Your task to perform on an android device: toggle translation in the chrome app Image 0: 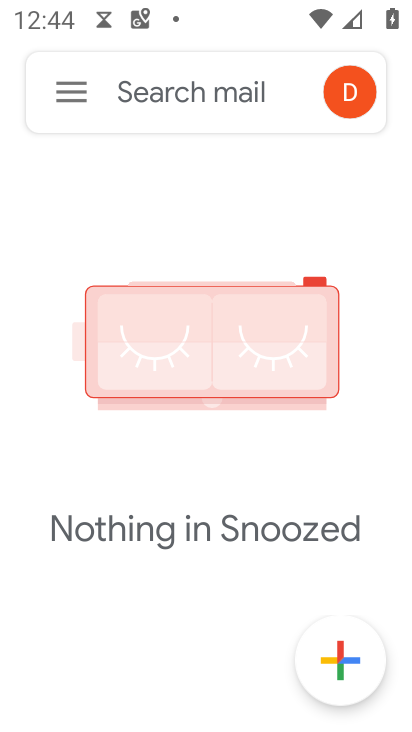
Step 0: press home button
Your task to perform on an android device: toggle translation in the chrome app Image 1: 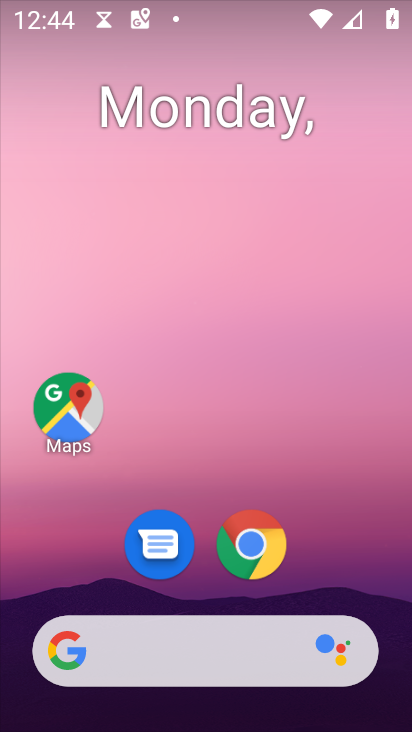
Step 1: click (241, 537)
Your task to perform on an android device: toggle translation in the chrome app Image 2: 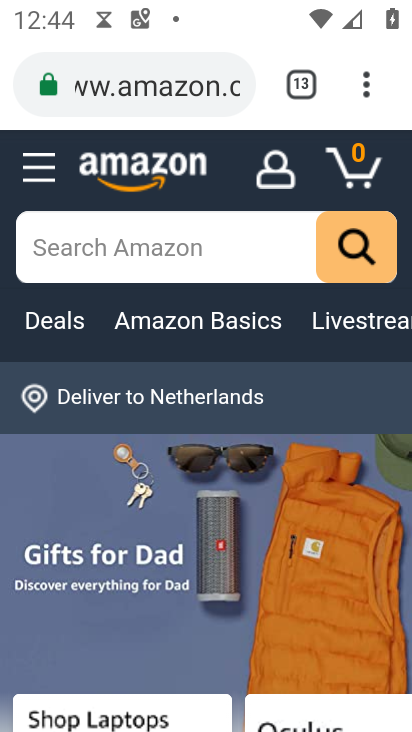
Step 2: click (367, 62)
Your task to perform on an android device: toggle translation in the chrome app Image 3: 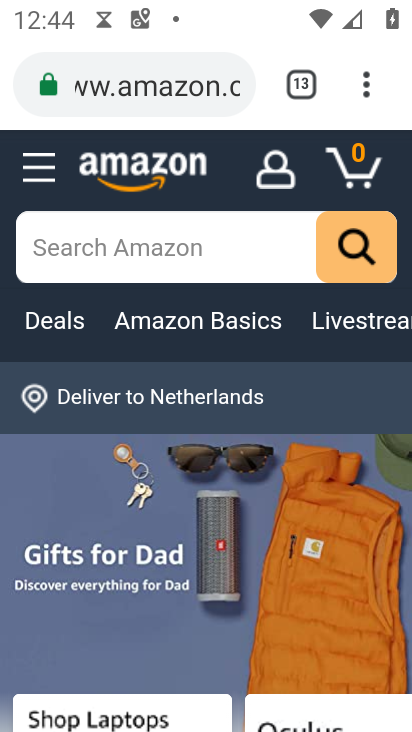
Step 3: click (367, 83)
Your task to perform on an android device: toggle translation in the chrome app Image 4: 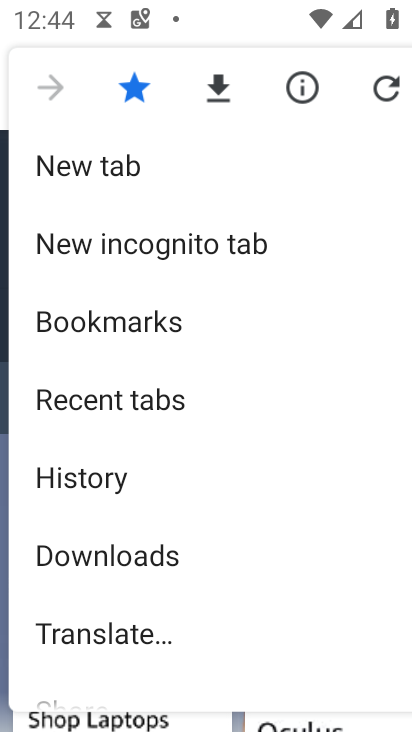
Step 4: drag from (183, 519) to (189, 402)
Your task to perform on an android device: toggle translation in the chrome app Image 5: 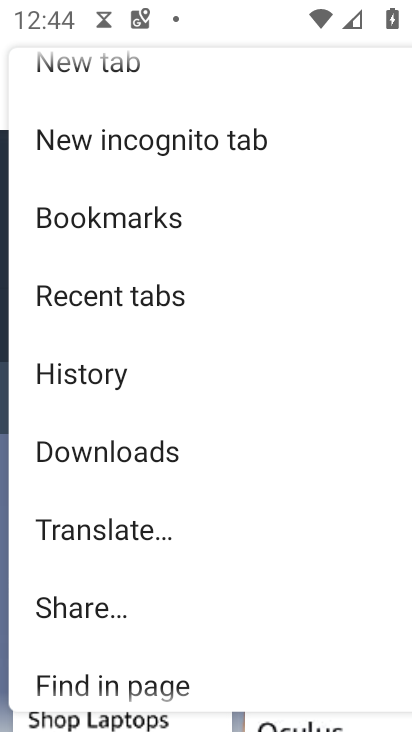
Step 5: drag from (140, 617) to (190, 331)
Your task to perform on an android device: toggle translation in the chrome app Image 6: 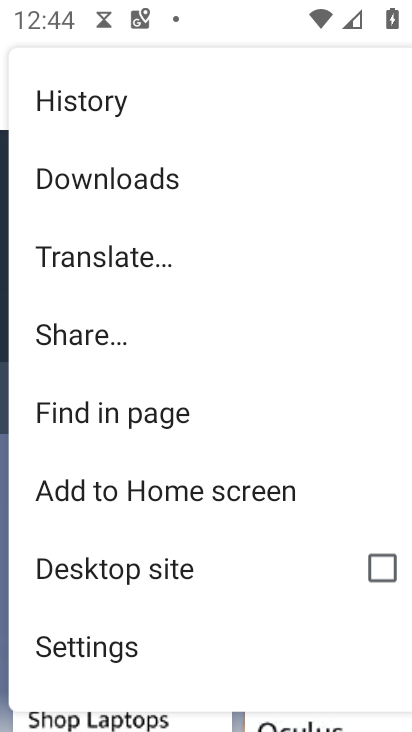
Step 6: click (121, 637)
Your task to perform on an android device: toggle translation in the chrome app Image 7: 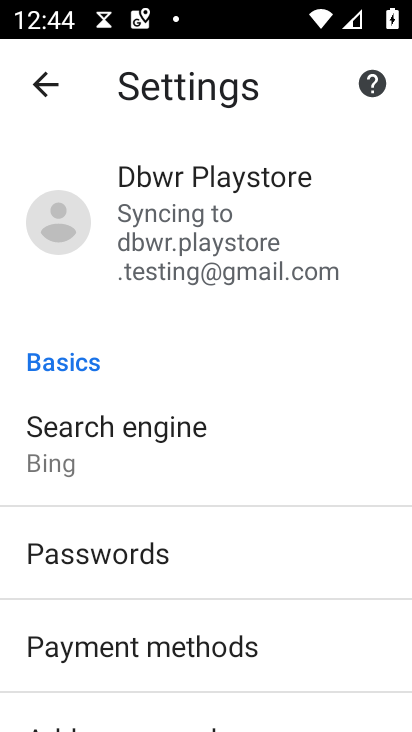
Step 7: drag from (228, 603) to (279, 255)
Your task to perform on an android device: toggle translation in the chrome app Image 8: 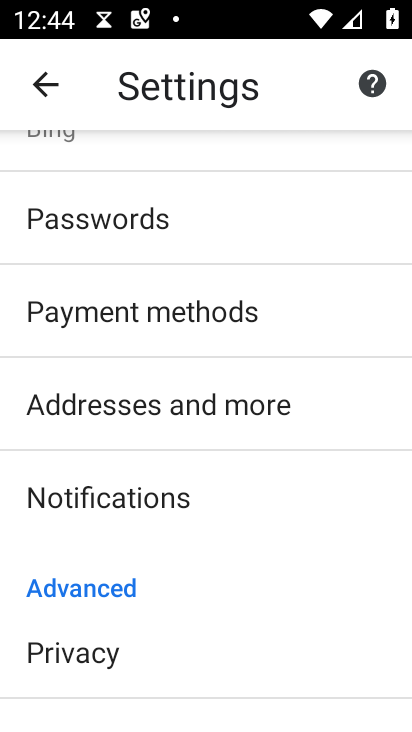
Step 8: drag from (189, 633) to (218, 294)
Your task to perform on an android device: toggle translation in the chrome app Image 9: 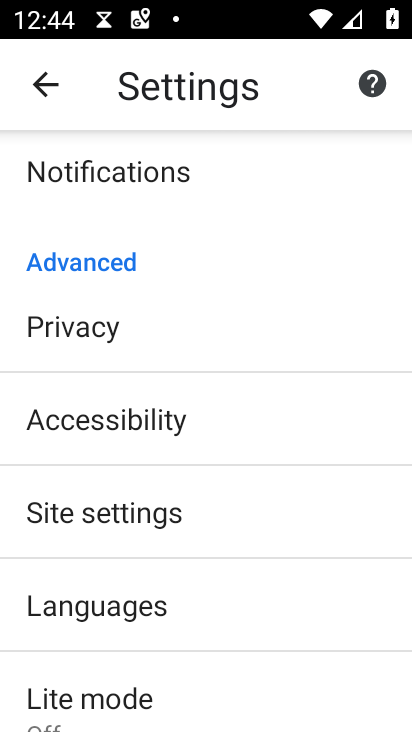
Step 9: click (205, 606)
Your task to perform on an android device: toggle translation in the chrome app Image 10: 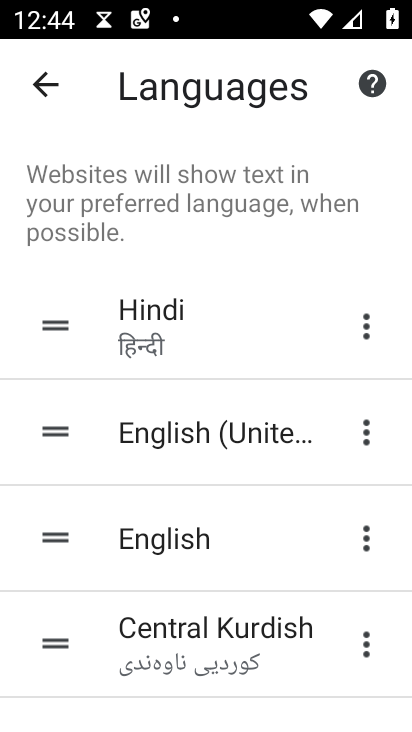
Step 10: drag from (213, 627) to (278, 375)
Your task to perform on an android device: toggle translation in the chrome app Image 11: 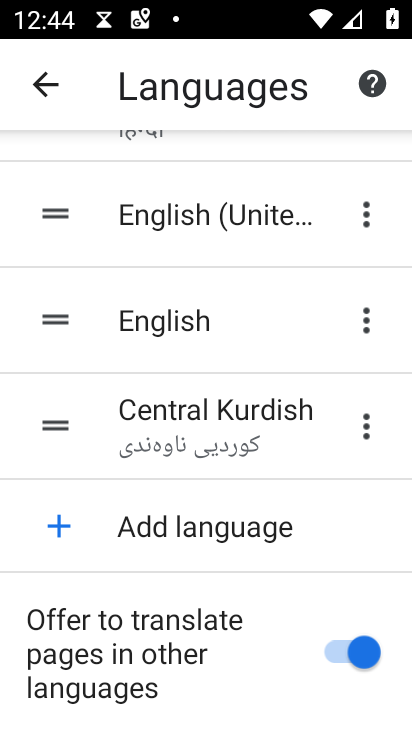
Step 11: click (335, 661)
Your task to perform on an android device: toggle translation in the chrome app Image 12: 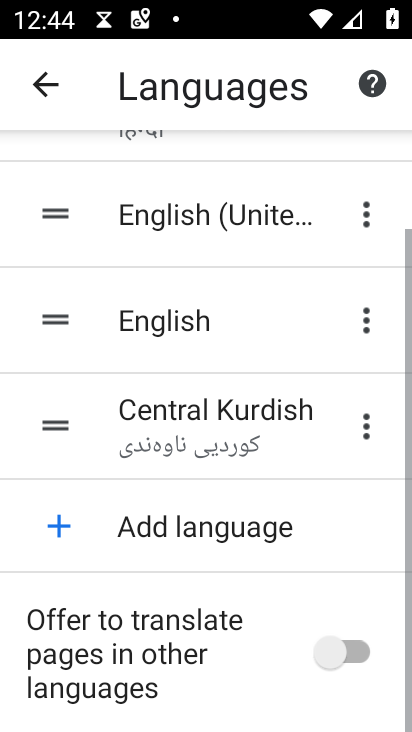
Step 12: task complete